Your task to perform on an android device: Toggle the flashlight Image 0: 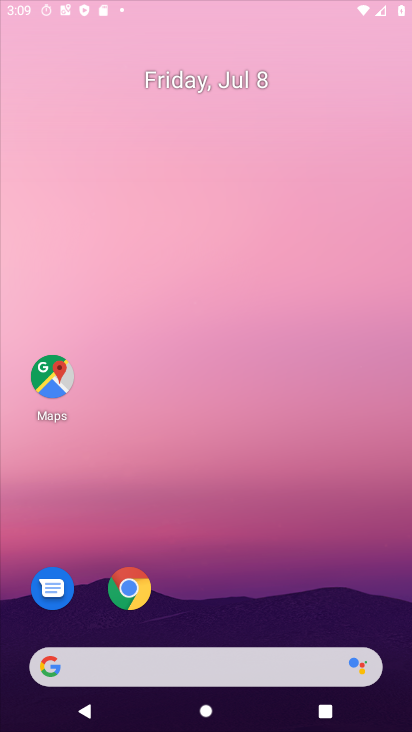
Step 0: press home button
Your task to perform on an android device: Toggle the flashlight Image 1: 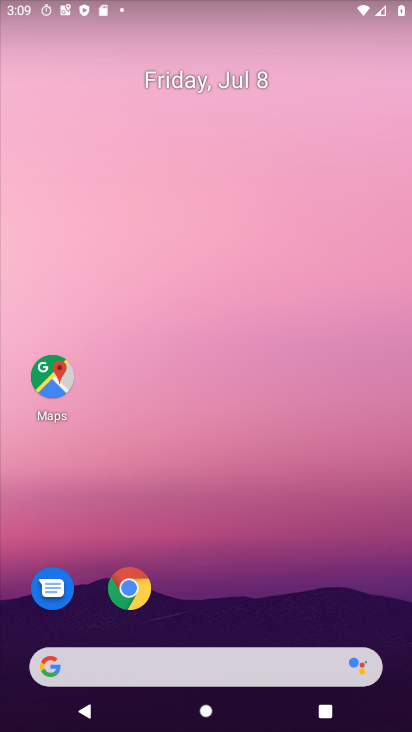
Step 1: task complete